Your task to perform on an android device: Open internet settings Image 0: 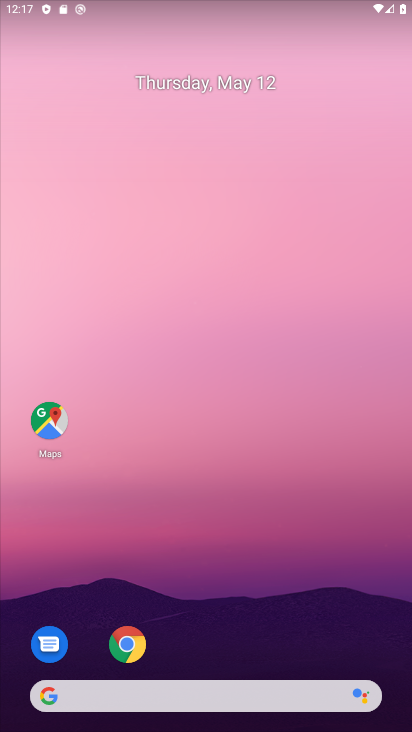
Step 0: drag from (259, 506) to (247, 48)
Your task to perform on an android device: Open internet settings Image 1: 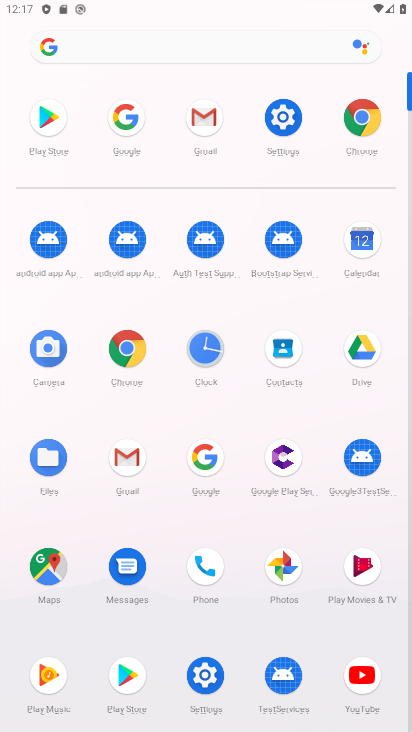
Step 1: click (276, 117)
Your task to perform on an android device: Open internet settings Image 2: 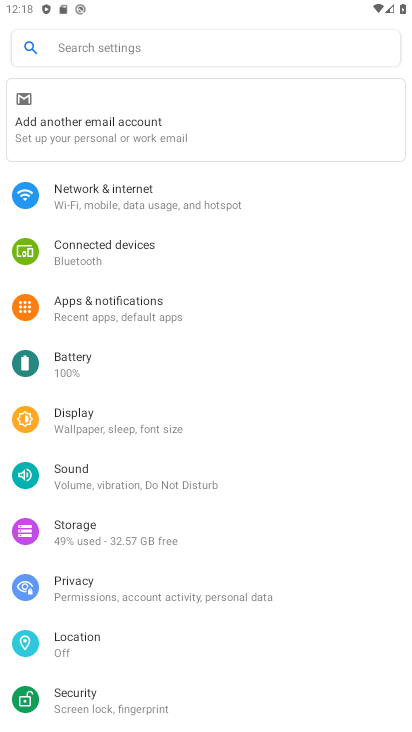
Step 2: click (137, 190)
Your task to perform on an android device: Open internet settings Image 3: 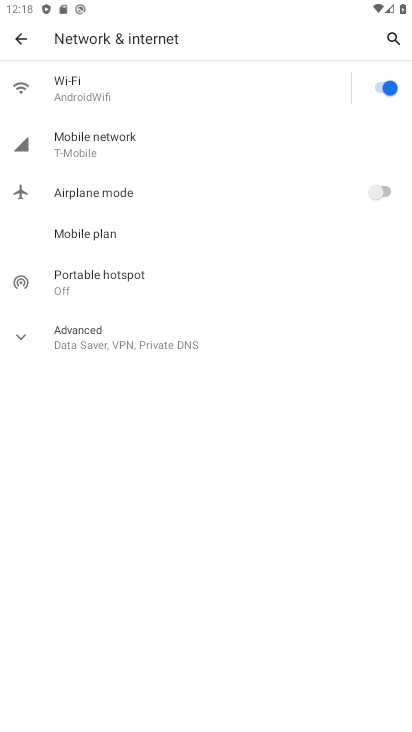
Step 3: task complete